Your task to perform on an android device: turn on javascript in the chrome app Image 0: 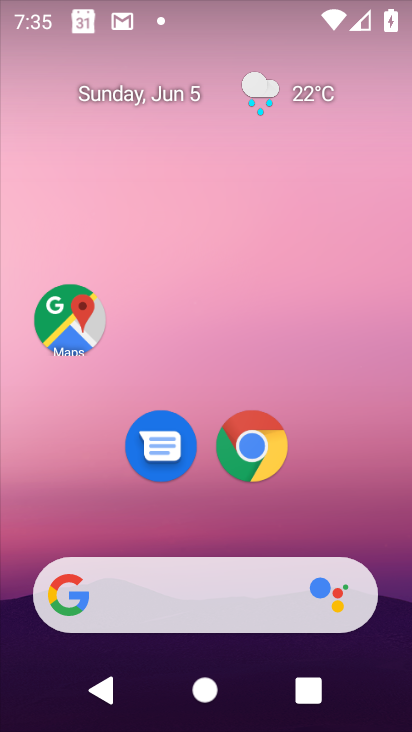
Step 0: click (256, 444)
Your task to perform on an android device: turn on javascript in the chrome app Image 1: 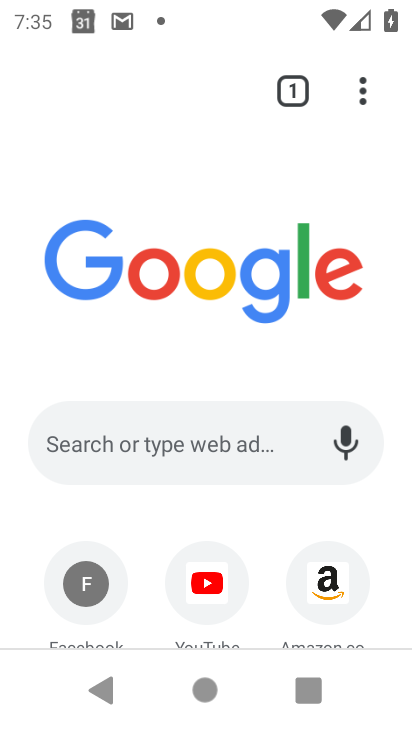
Step 1: click (363, 95)
Your task to perform on an android device: turn on javascript in the chrome app Image 2: 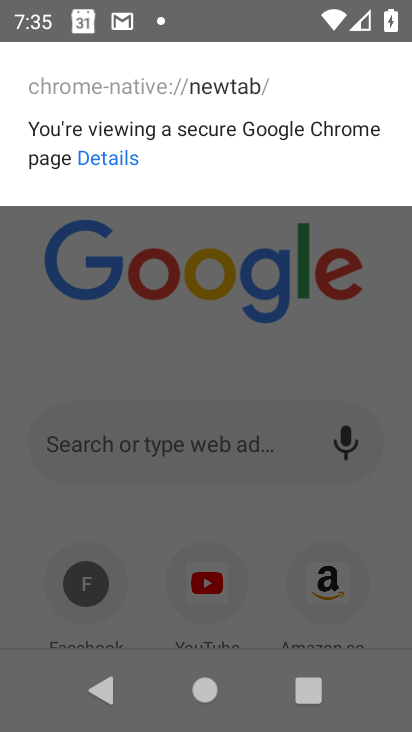
Step 2: click (349, 235)
Your task to perform on an android device: turn on javascript in the chrome app Image 3: 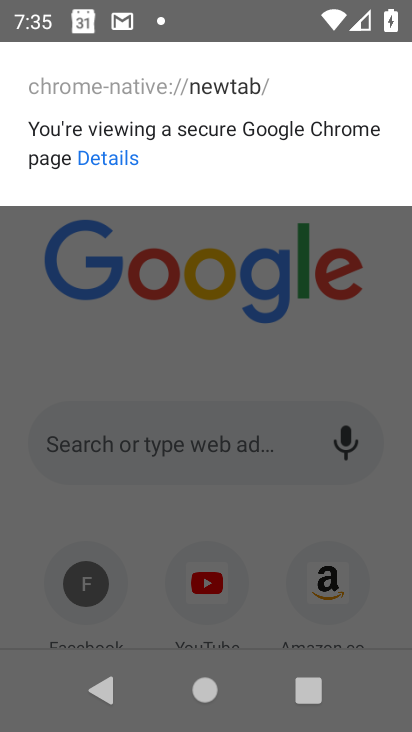
Step 3: press back button
Your task to perform on an android device: turn on javascript in the chrome app Image 4: 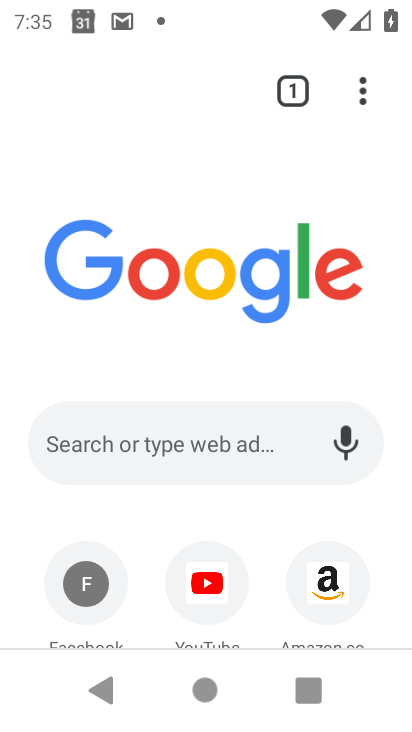
Step 4: click (360, 90)
Your task to perform on an android device: turn on javascript in the chrome app Image 5: 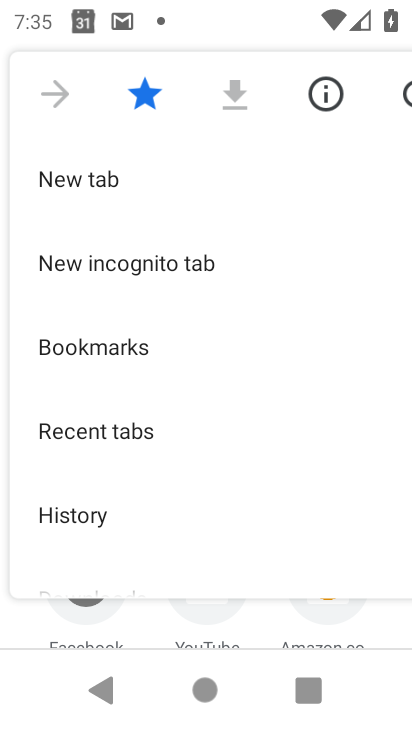
Step 5: drag from (81, 548) to (170, 197)
Your task to perform on an android device: turn on javascript in the chrome app Image 6: 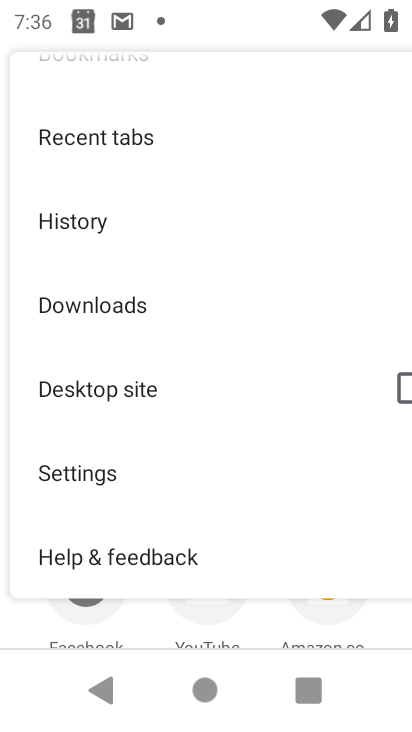
Step 6: click (80, 474)
Your task to perform on an android device: turn on javascript in the chrome app Image 7: 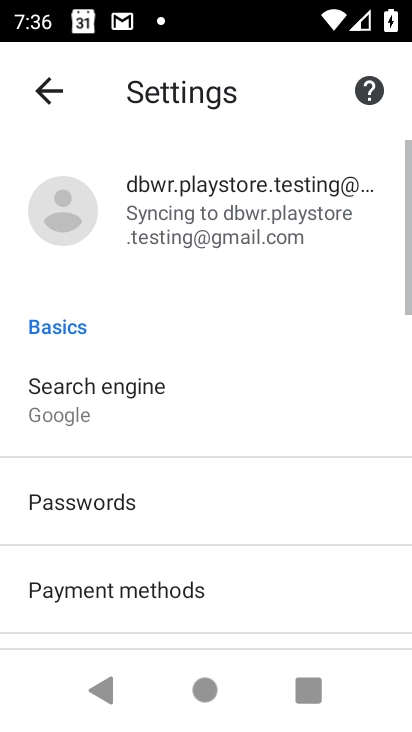
Step 7: drag from (147, 398) to (186, 179)
Your task to perform on an android device: turn on javascript in the chrome app Image 8: 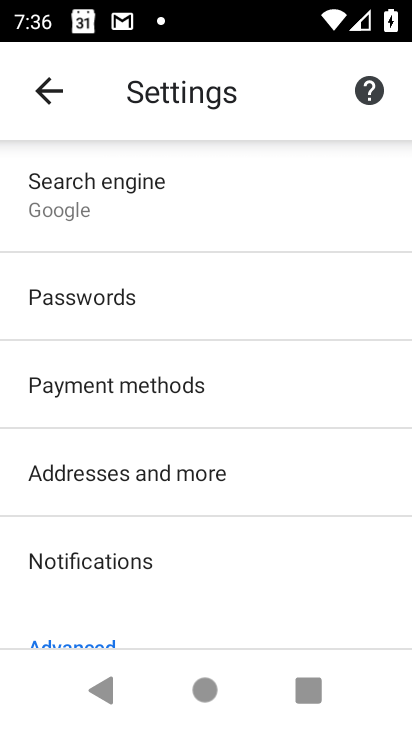
Step 8: drag from (107, 561) to (239, 193)
Your task to perform on an android device: turn on javascript in the chrome app Image 9: 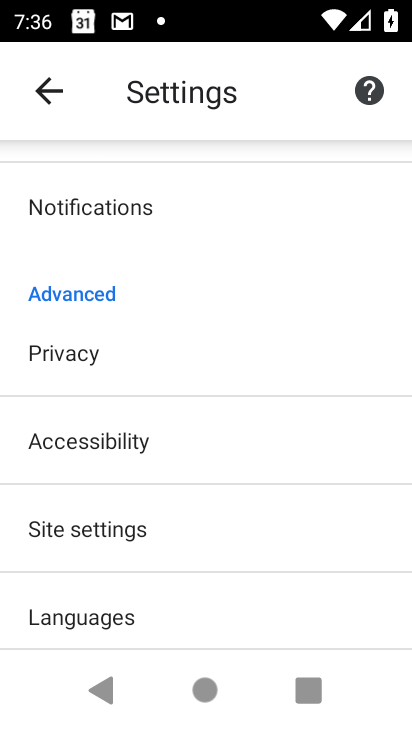
Step 9: click (60, 538)
Your task to perform on an android device: turn on javascript in the chrome app Image 10: 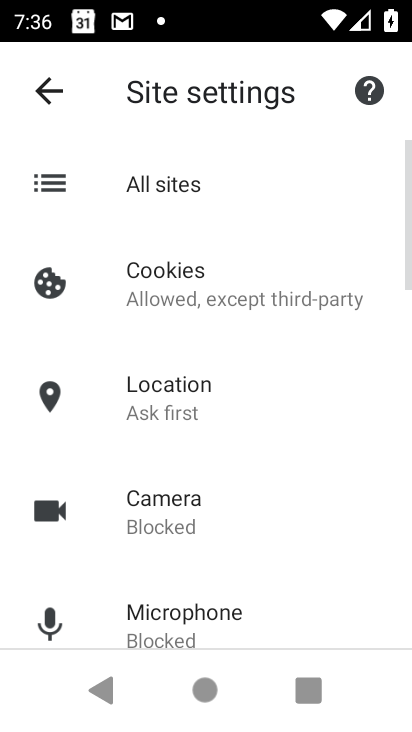
Step 10: drag from (216, 575) to (354, 166)
Your task to perform on an android device: turn on javascript in the chrome app Image 11: 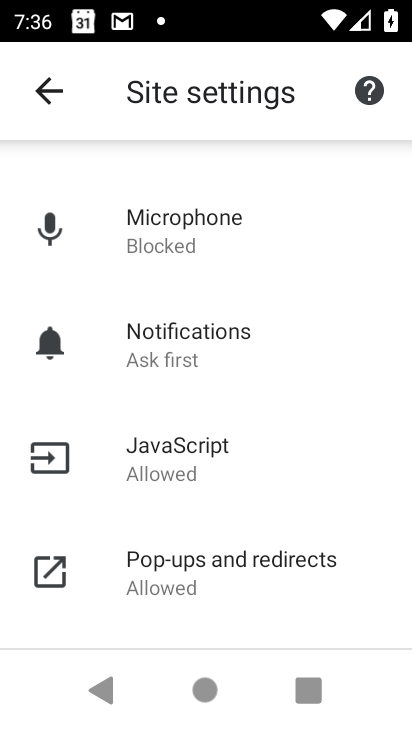
Step 11: click (211, 444)
Your task to perform on an android device: turn on javascript in the chrome app Image 12: 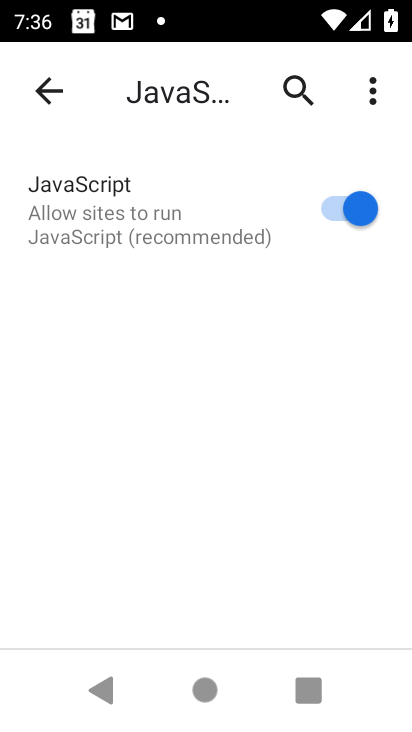
Step 12: task complete